Your task to perform on an android device: Go to privacy settings Image 0: 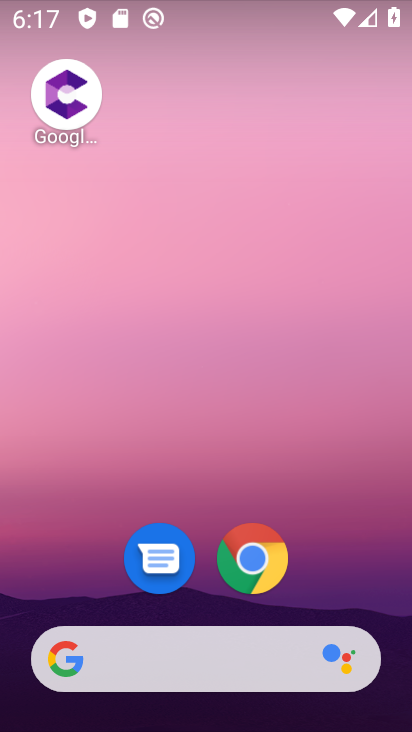
Step 0: drag from (387, 621) to (348, 290)
Your task to perform on an android device: Go to privacy settings Image 1: 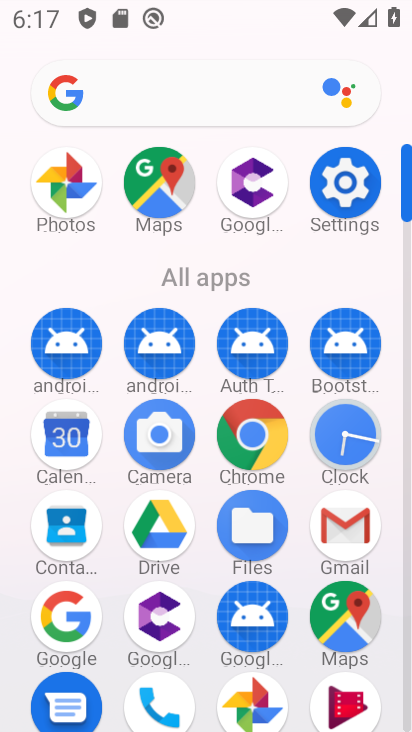
Step 1: click (351, 202)
Your task to perform on an android device: Go to privacy settings Image 2: 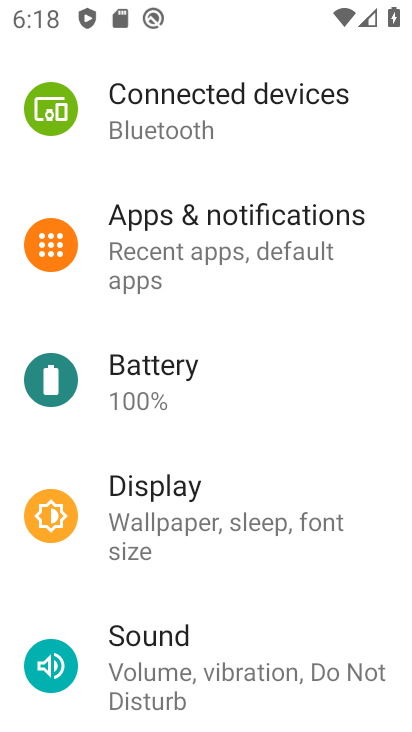
Step 2: drag from (244, 262) to (282, 32)
Your task to perform on an android device: Go to privacy settings Image 3: 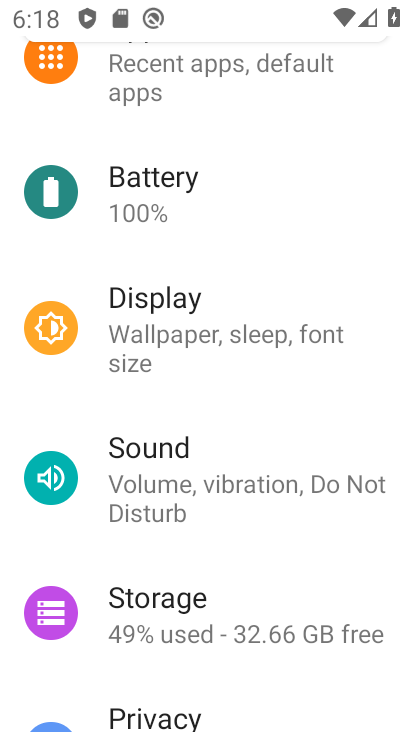
Step 3: drag from (205, 672) to (199, 291)
Your task to perform on an android device: Go to privacy settings Image 4: 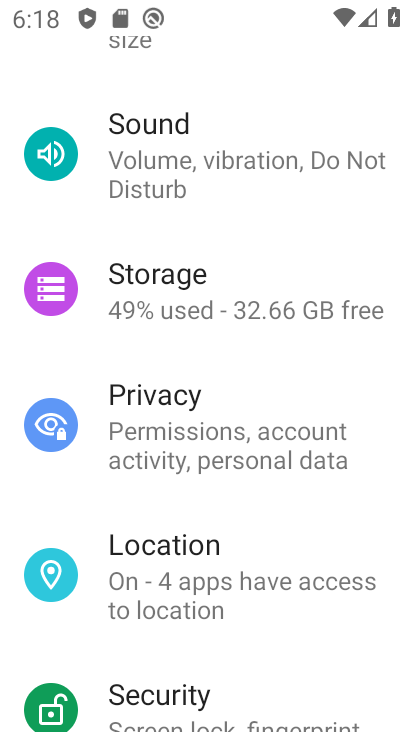
Step 4: click (215, 403)
Your task to perform on an android device: Go to privacy settings Image 5: 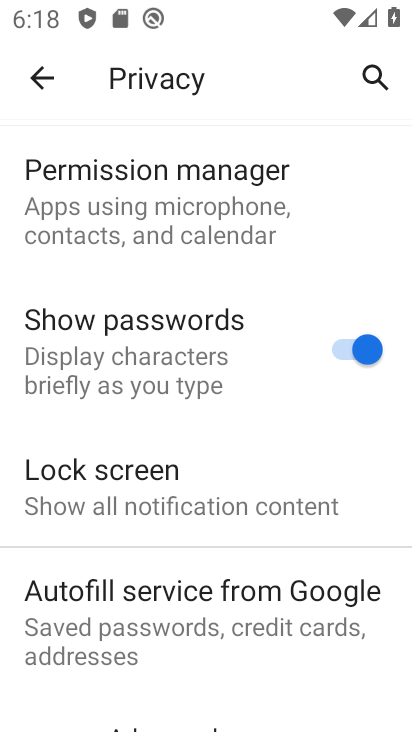
Step 5: task complete